Your task to perform on an android device: empty trash in the gmail app Image 0: 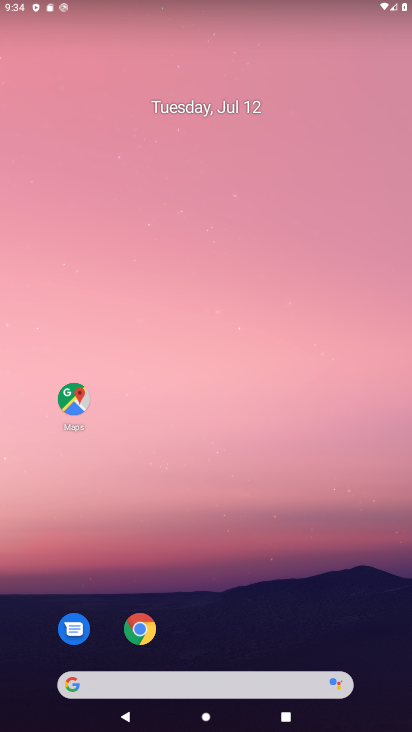
Step 0: drag from (260, 589) to (279, 14)
Your task to perform on an android device: empty trash in the gmail app Image 1: 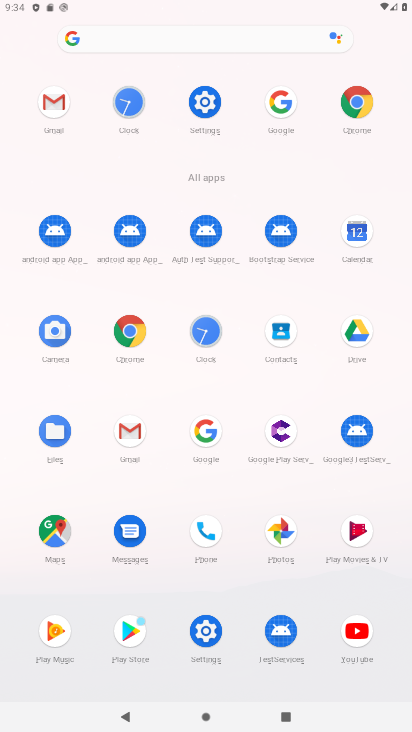
Step 1: click (48, 97)
Your task to perform on an android device: empty trash in the gmail app Image 2: 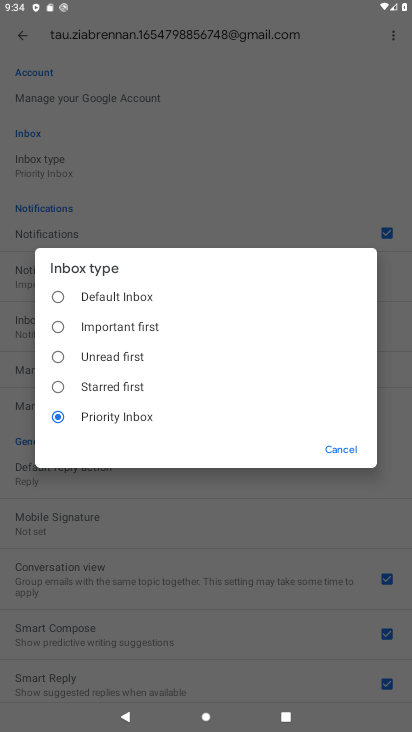
Step 2: click (352, 449)
Your task to perform on an android device: empty trash in the gmail app Image 3: 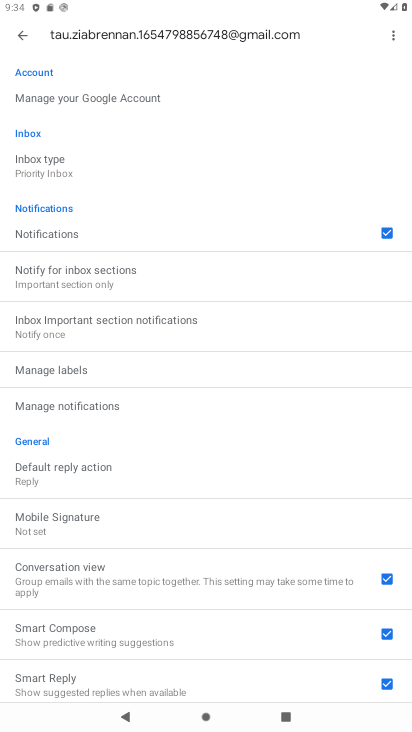
Step 3: click (29, 36)
Your task to perform on an android device: empty trash in the gmail app Image 4: 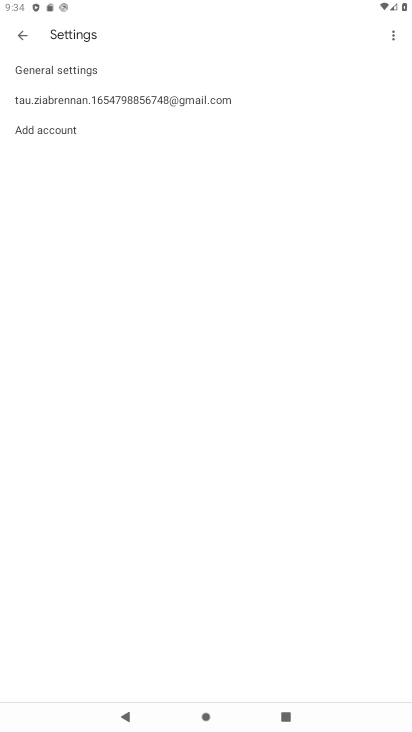
Step 4: click (28, 36)
Your task to perform on an android device: empty trash in the gmail app Image 5: 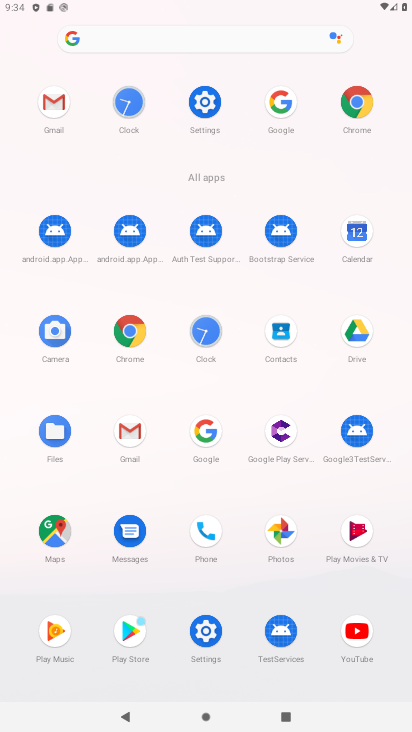
Step 5: click (57, 103)
Your task to perform on an android device: empty trash in the gmail app Image 6: 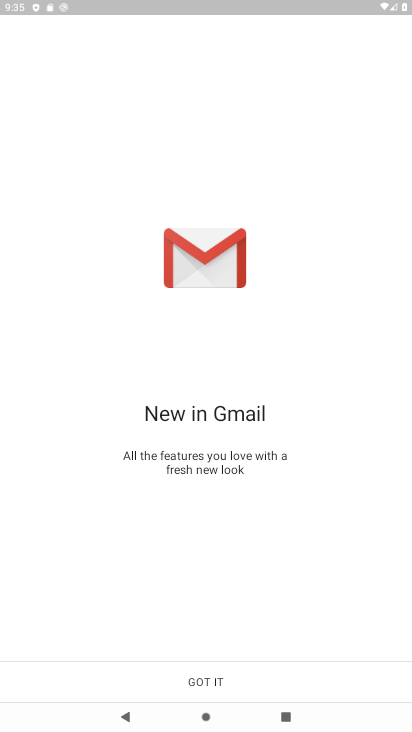
Step 6: click (197, 675)
Your task to perform on an android device: empty trash in the gmail app Image 7: 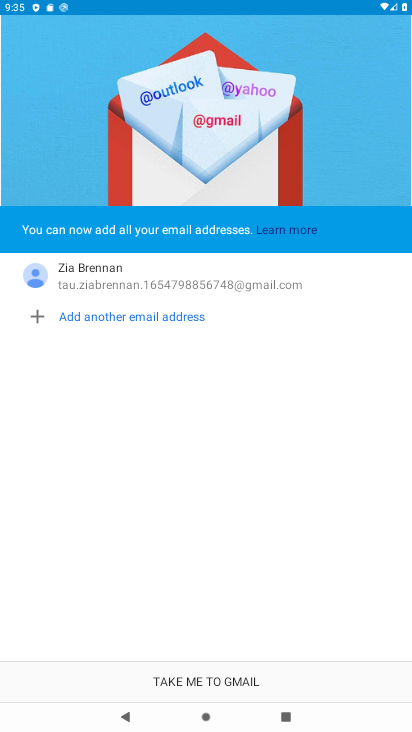
Step 7: click (196, 675)
Your task to perform on an android device: empty trash in the gmail app Image 8: 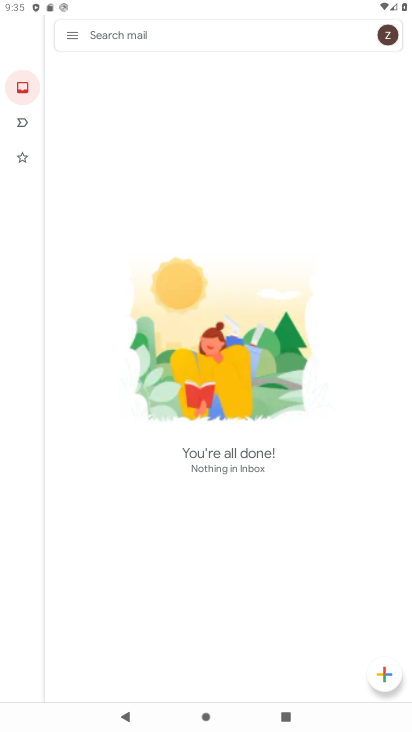
Step 8: click (87, 28)
Your task to perform on an android device: empty trash in the gmail app Image 9: 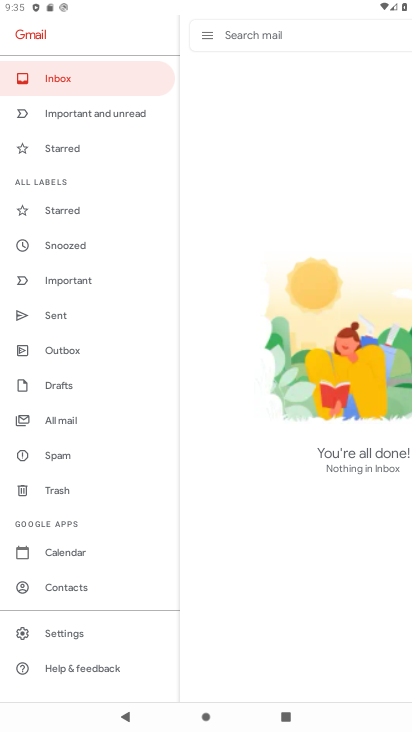
Step 9: click (71, 488)
Your task to perform on an android device: empty trash in the gmail app Image 10: 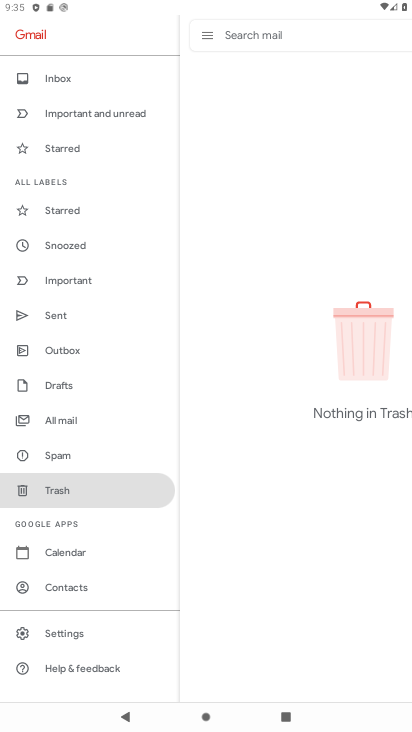
Step 10: task complete